Your task to perform on an android device: Open eBay Image 0: 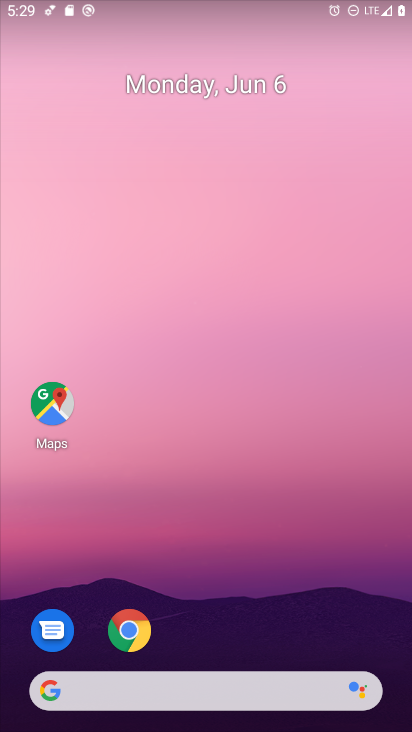
Step 0: click (136, 633)
Your task to perform on an android device: Open eBay Image 1: 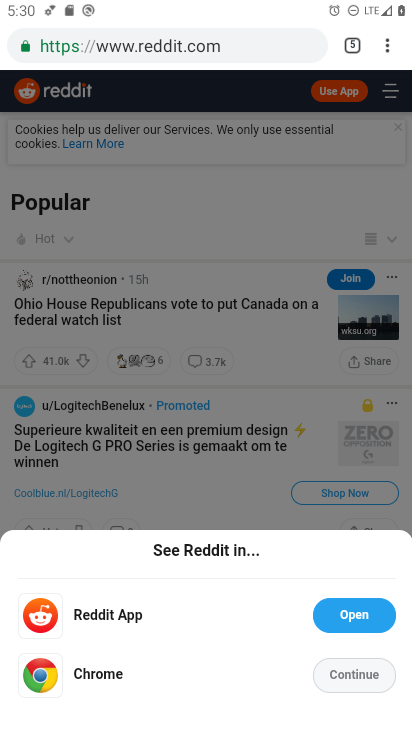
Step 1: click (356, 39)
Your task to perform on an android device: Open eBay Image 2: 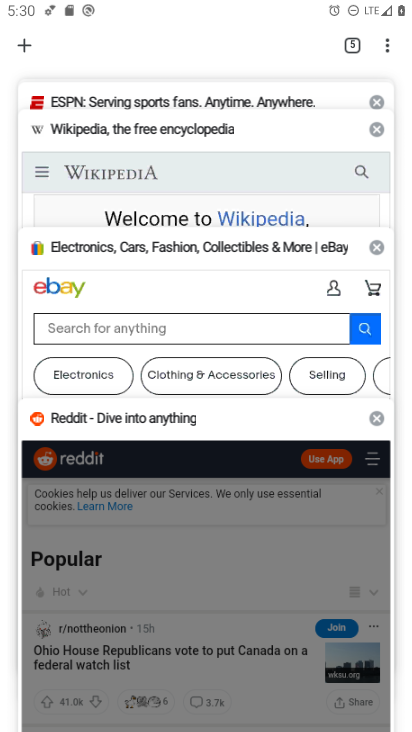
Step 2: click (142, 284)
Your task to perform on an android device: Open eBay Image 3: 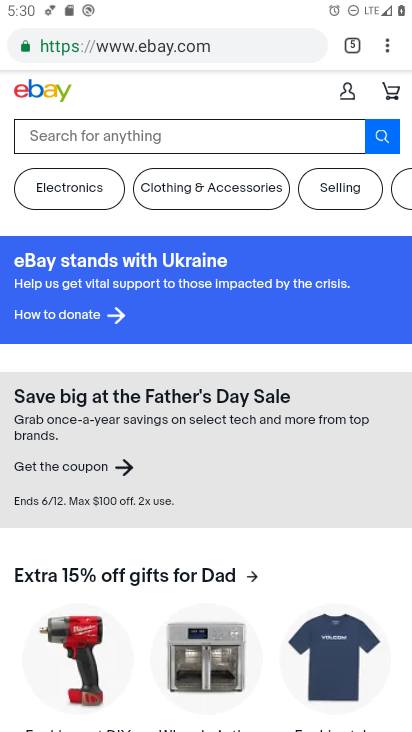
Step 3: task complete